Your task to perform on an android device: turn on priority inbox in the gmail app Image 0: 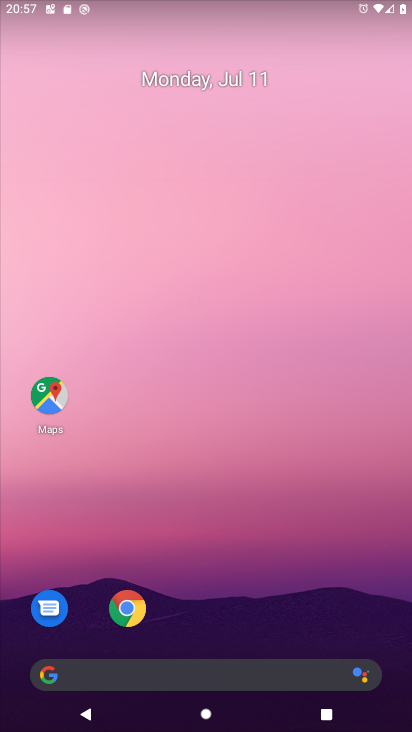
Step 0: drag from (268, 619) to (223, 1)
Your task to perform on an android device: turn on priority inbox in the gmail app Image 1: 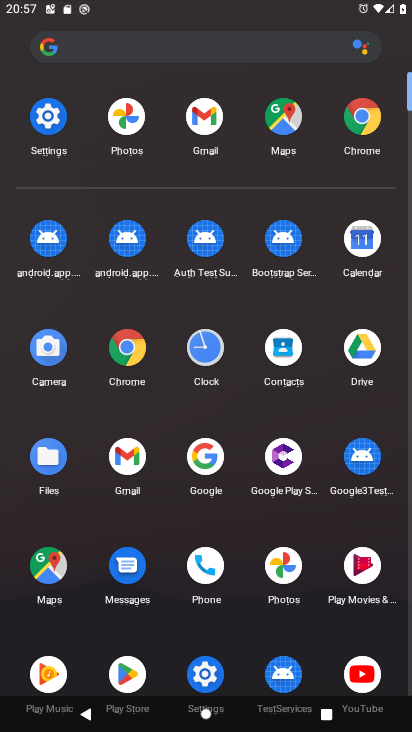
Step 1: click (101, 452)
Your task to perform on an android device: turn on priority inbox in the gmail app Image 2: 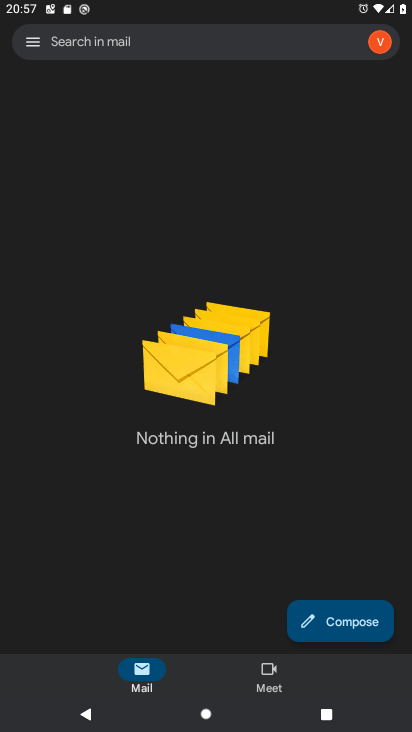
Step 2: click (33, 46)
Your task to perform on an android device: turn on priority inbox in the gmail app Image 3: 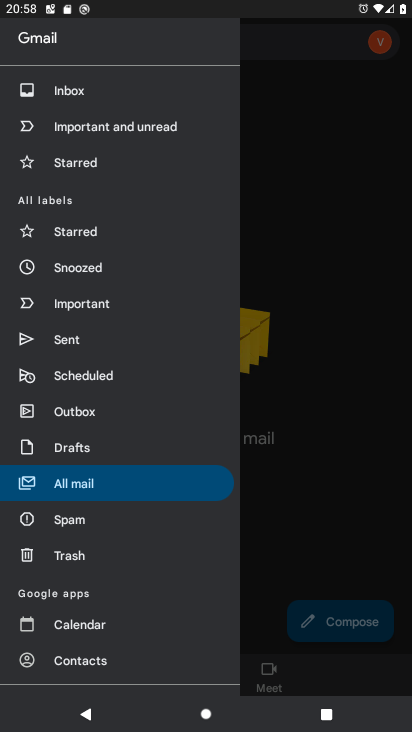
Step 3: drag from (73, 626) to (36, 249)
Your task to perform on an android device: turn on priority inbox in the gmail app Image 4: 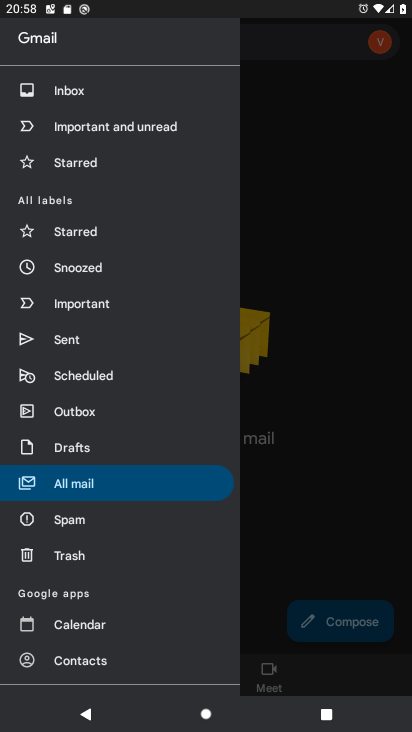
Step 4: drag from (77, 602) to (77, 319)
Your task to perform on an android device: turn on priority inbox in the gmail app Image 5: 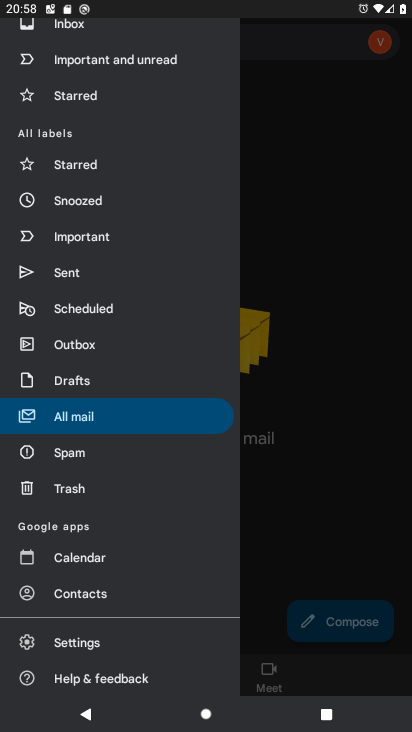
Step 5: click (66, 634)
Your task to perform on an android device: turn on priority inbox in the gmail app Image 6: 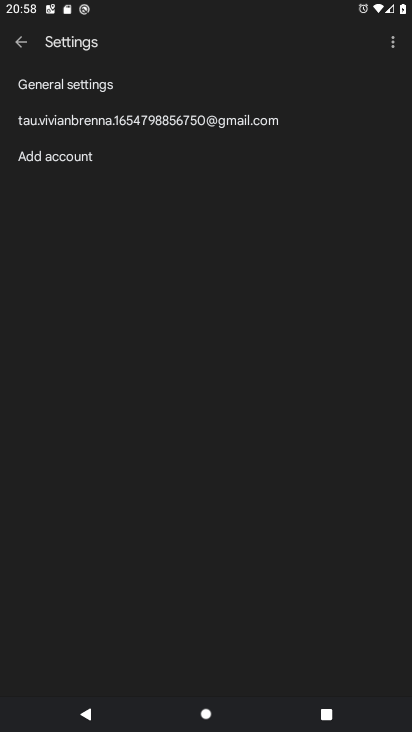
Step 6: click (67, 138)
Your task to perform on an android device: turn on priority inbox in the gmail app Image 7: 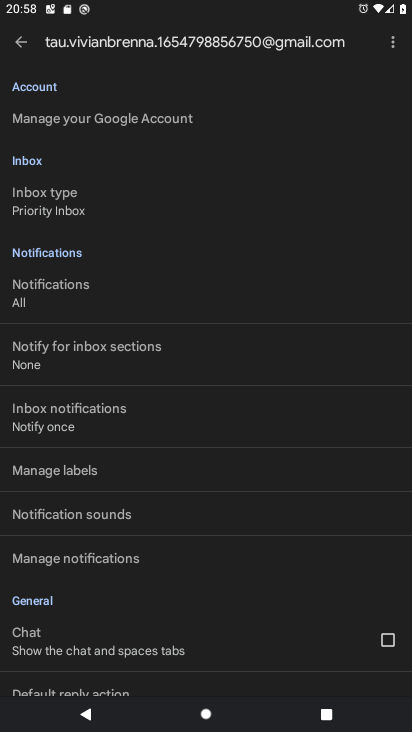
Step 7: drag from (70, 554) to (65, 340)
Your task to perform on an android device: turn on priority inbox in the gmail app Image 8: 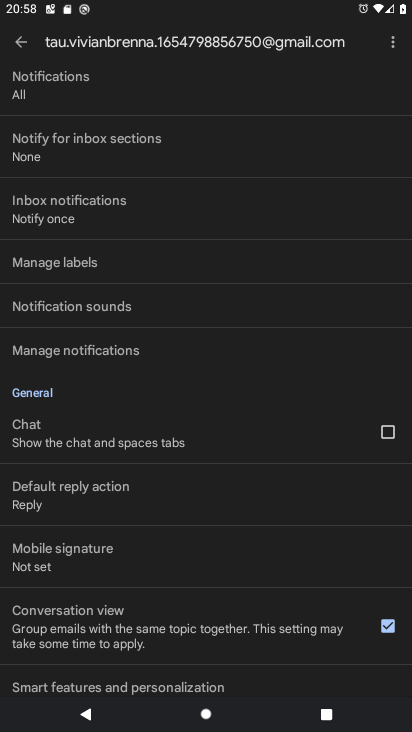
Step 8: drag from (144, 345) to (185, 707)
Your task to perform on an android device: turn on priority inbox in the gmail app Image 9: 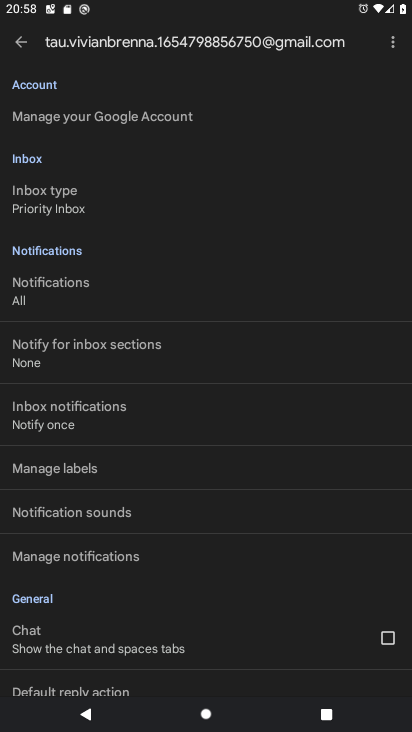
Step 9: click (150, 215)
Your task to perform on an android device: turn on priority inbox in the gmail app Image 10: 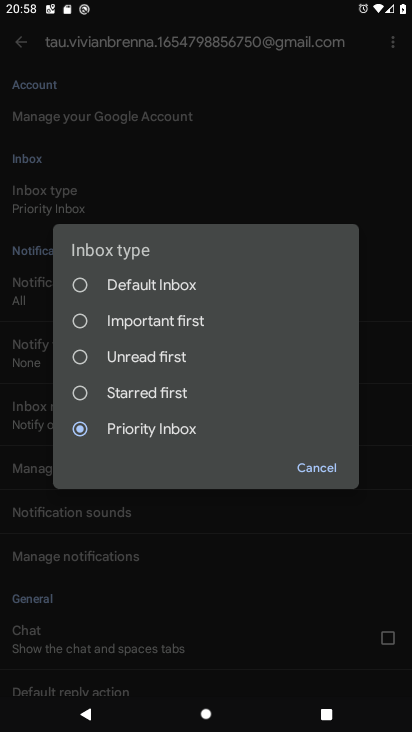
Step 10: task complete